Your task to perform on an android device: Open Yahoo.com Image 0: 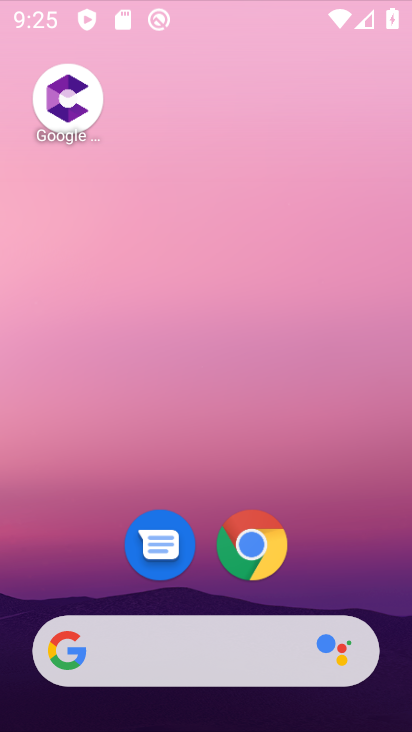
Step 0: drag from (321, 583) to (409, 88)
Your task to perform on an android device: Open Yahoo.com Image 1: 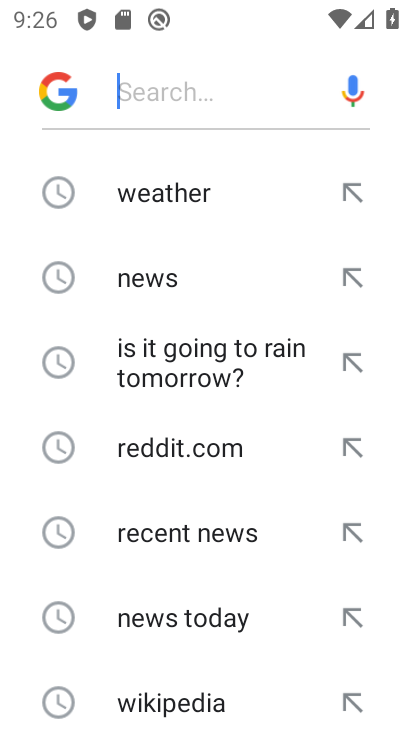
Step 1: type "yahoo.com"
Your task to perform on an android device: Open Yahoo.com Image 2: 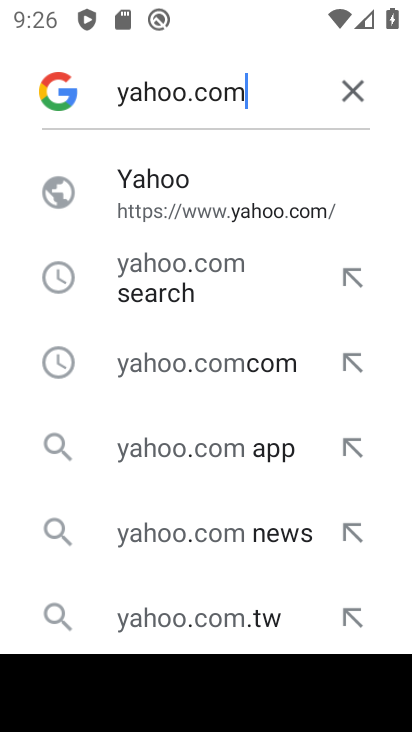
Step 2: click (185, 207)
Your task to perform on an android device: Open Yahoo.com Image 3: 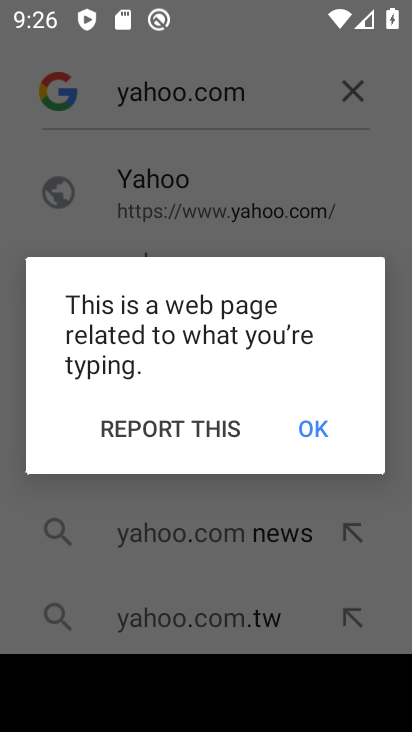
Step 3: click (313, 432)
Your task to perform on an android device: Open Yahoo.com Image 4: 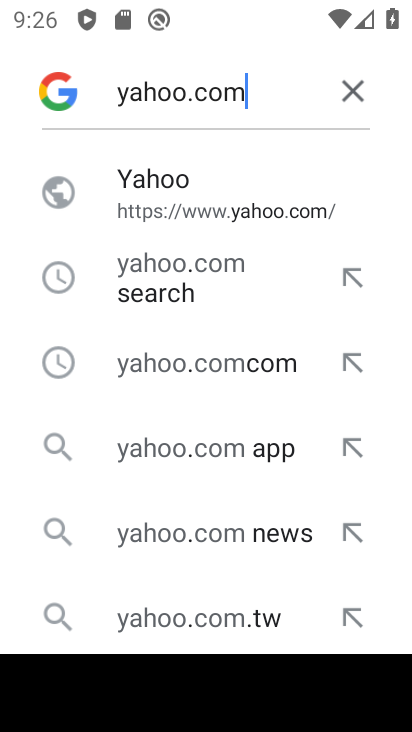
Step 4: click (147, 303)
Your task to perform on an android device: Open Yahoo.com Image 5: 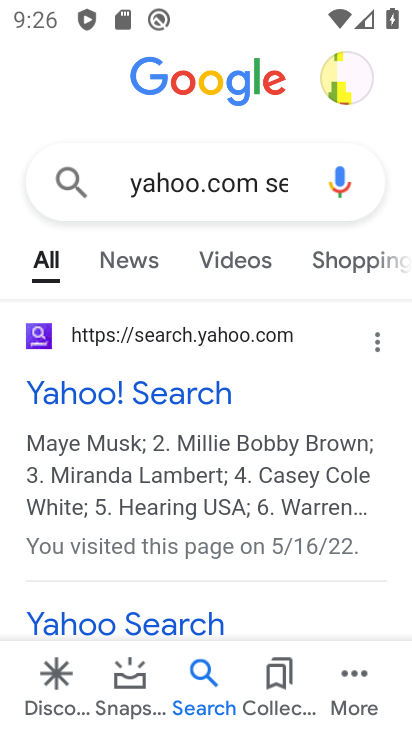
Step 5: click (148, 348)
Your task to perform on an android device: Open Yahoo.com Image 6: 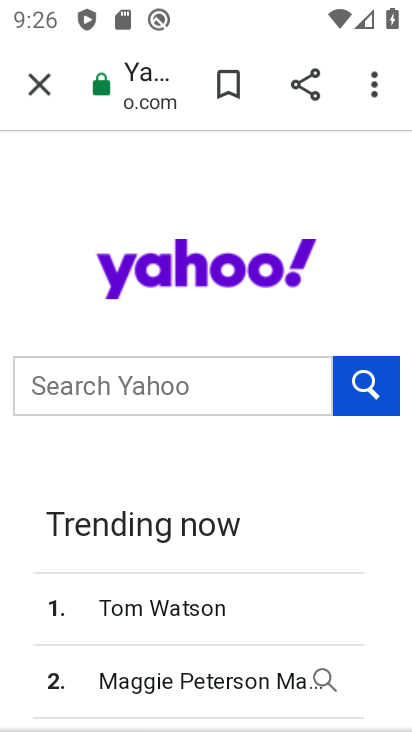
Step 6: task complete